Your task to perform on an android device: Check the latest 3D printers on Target. Image 0: 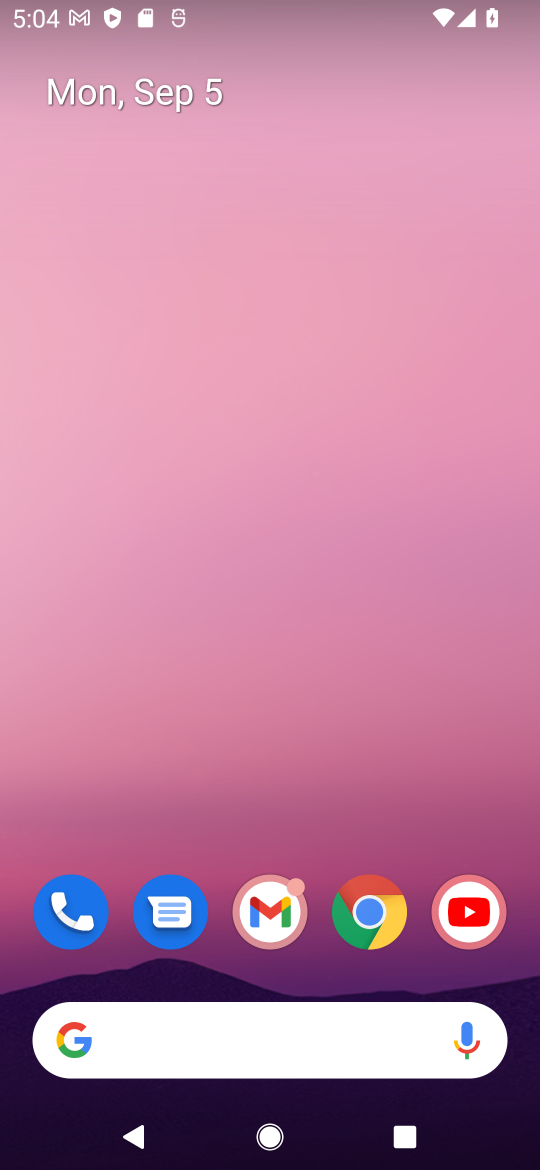
Step 0: click (367, 934)
Your task to perform on an android device: Check the latest 3D printers on Target. Image 1: 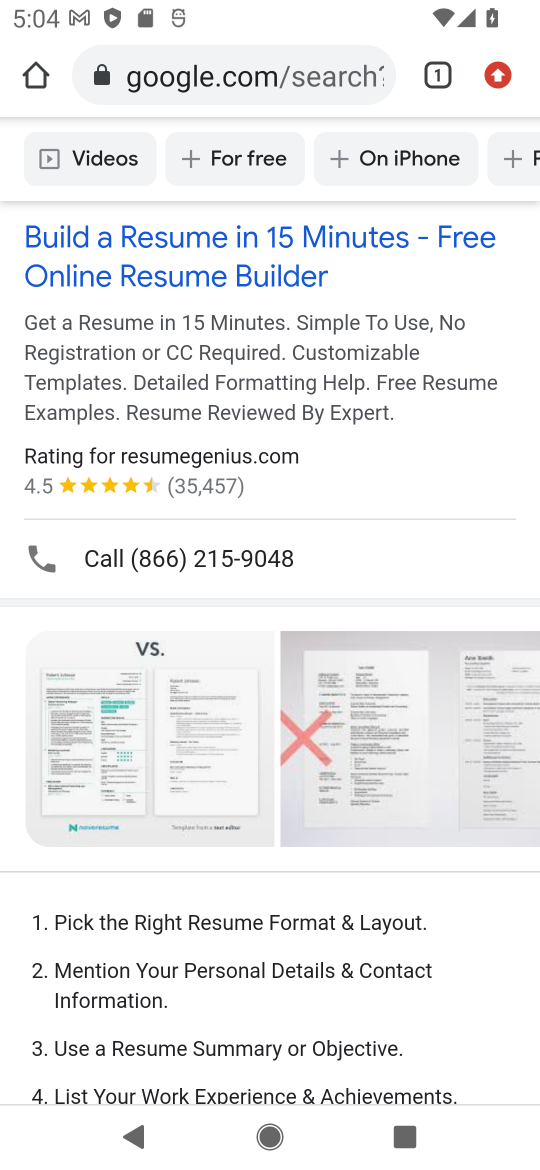
Step 1: click (222, 84)
Your task to perform on an android device: Check the latest 3D printers on Target. Image 2: 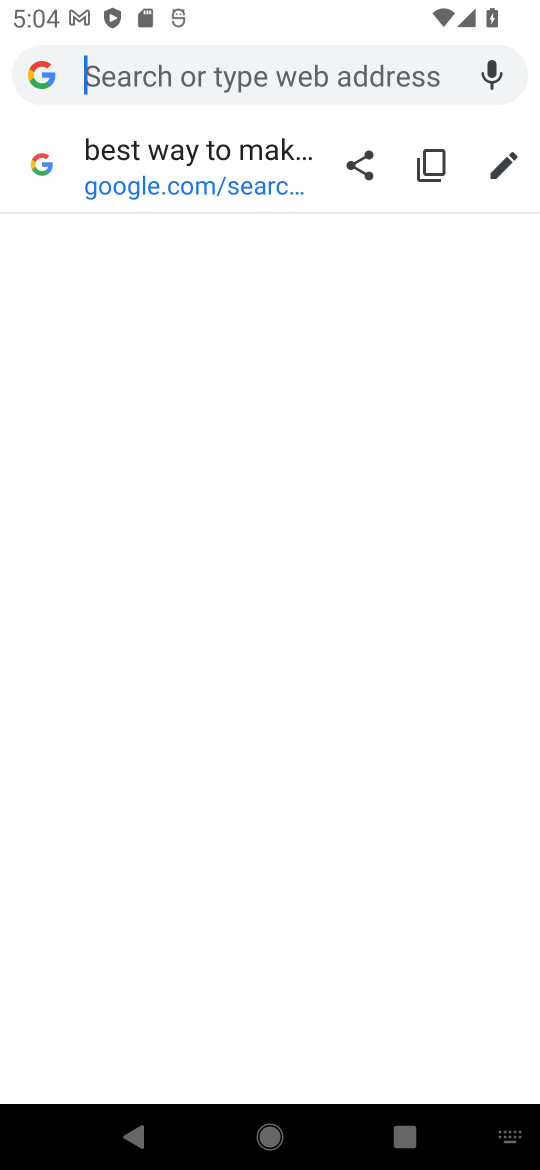
Step 2: type "target"
Your task to perform on an android device: Check the latest 3D printers on Target. Image 3: 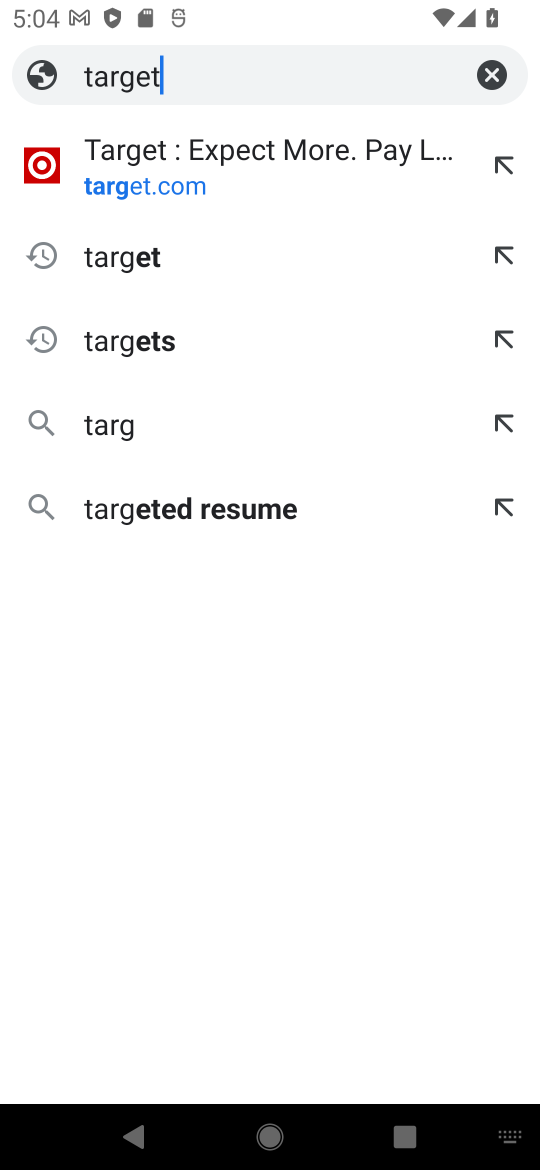
Step 3: type ""
Your task to perform on an android device: Check the latest 3D printers on Target. Image 4: 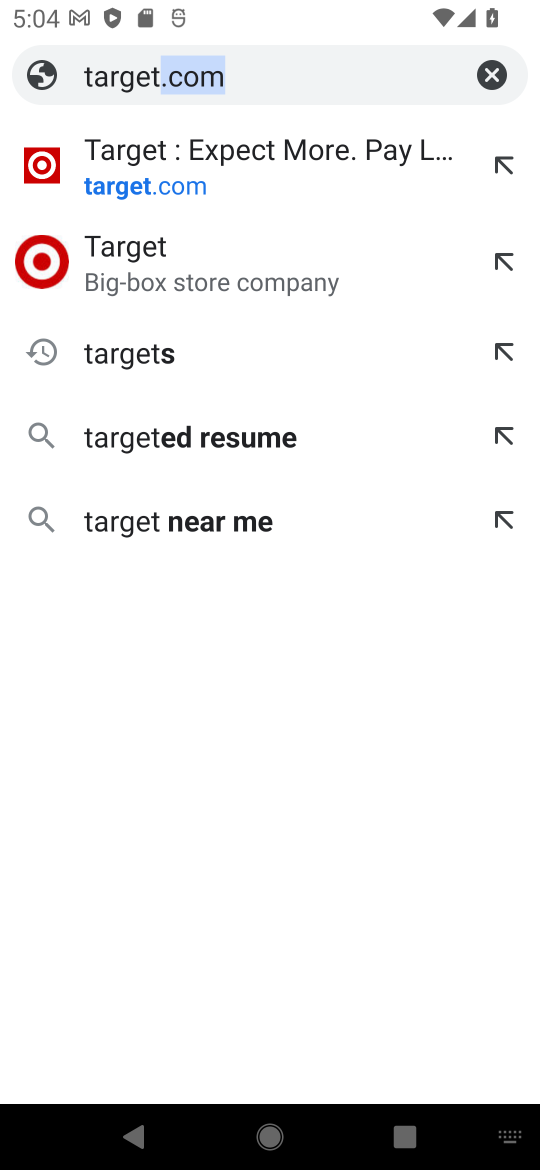
Step 4: press enter
Your task to perform on an android device: Check the latest 3D printers on Target. Image 5: 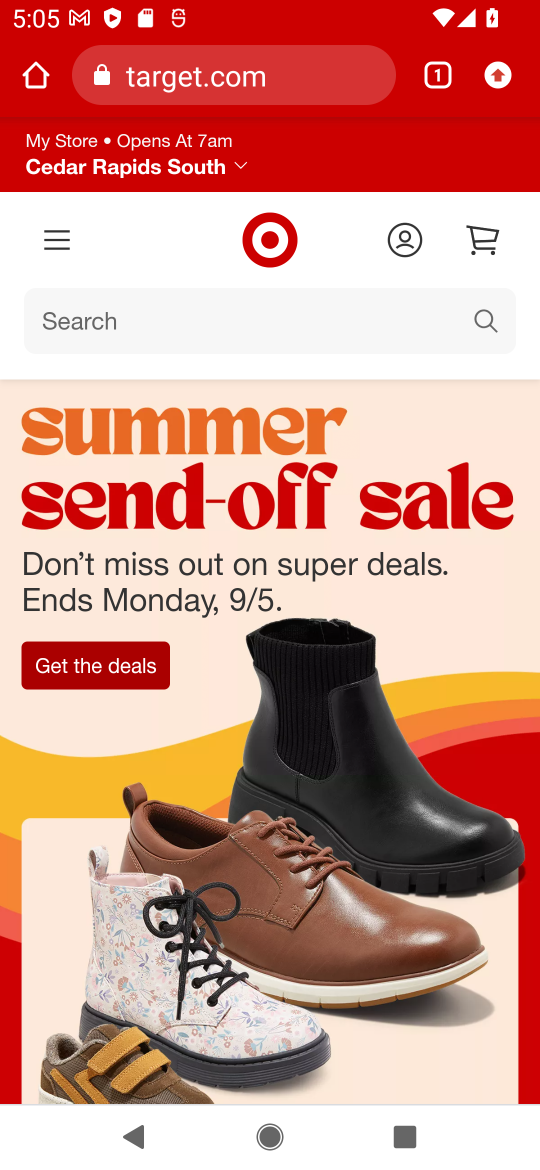
Step 5: click (315, 326)
Your task to perform on an android device: Check the latest 3D printers on Target. Image 6: 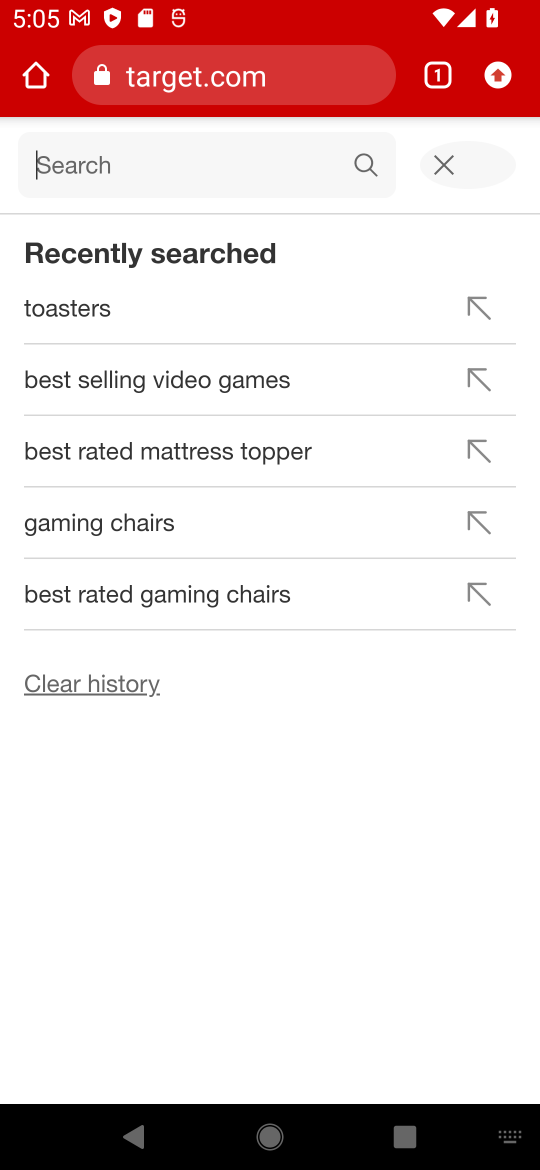
Step 6: type "3d printers"
Your task to perform on an android device: Check the latest 3D printers on Target. Image 7: 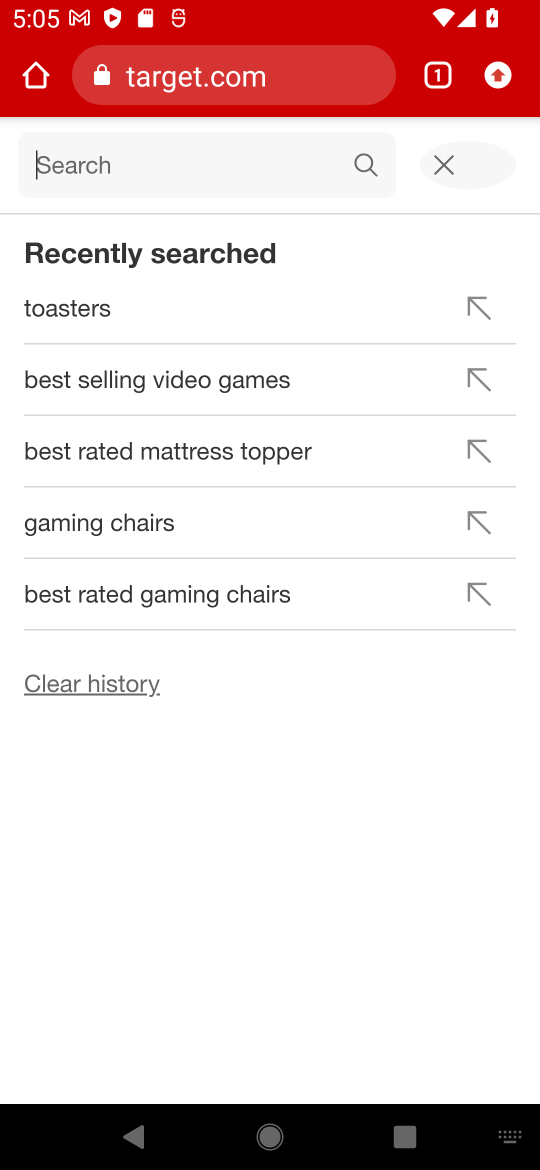
Step 7: type ""
Your task to perform on an android device: Check the latest 3D printers on Target. Image 8: 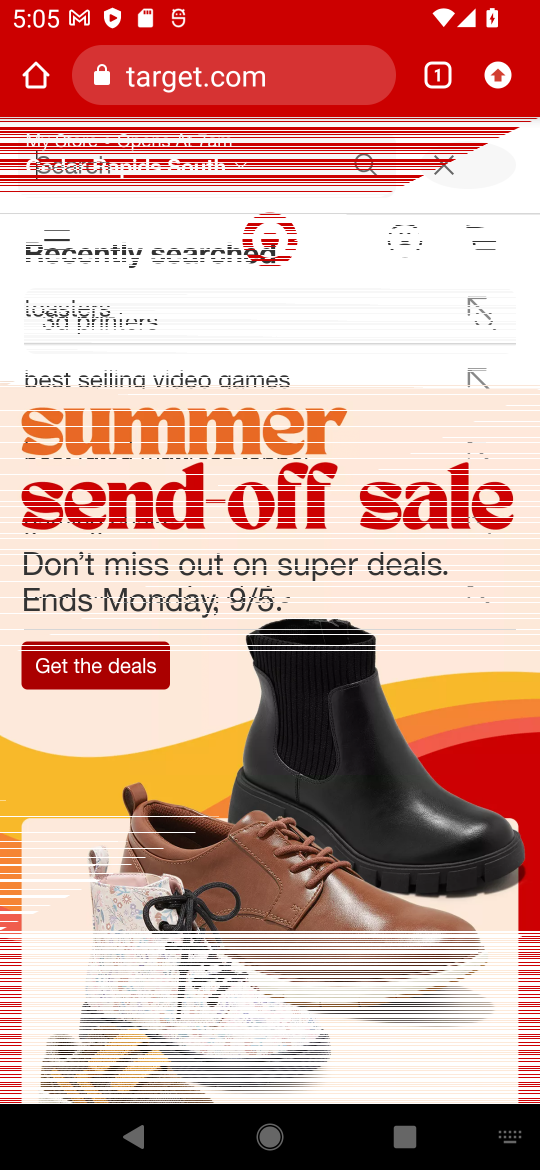
Step 8: press enter
Your task to perform on an android device: Check the latest 3D printers on Target. Image 9: 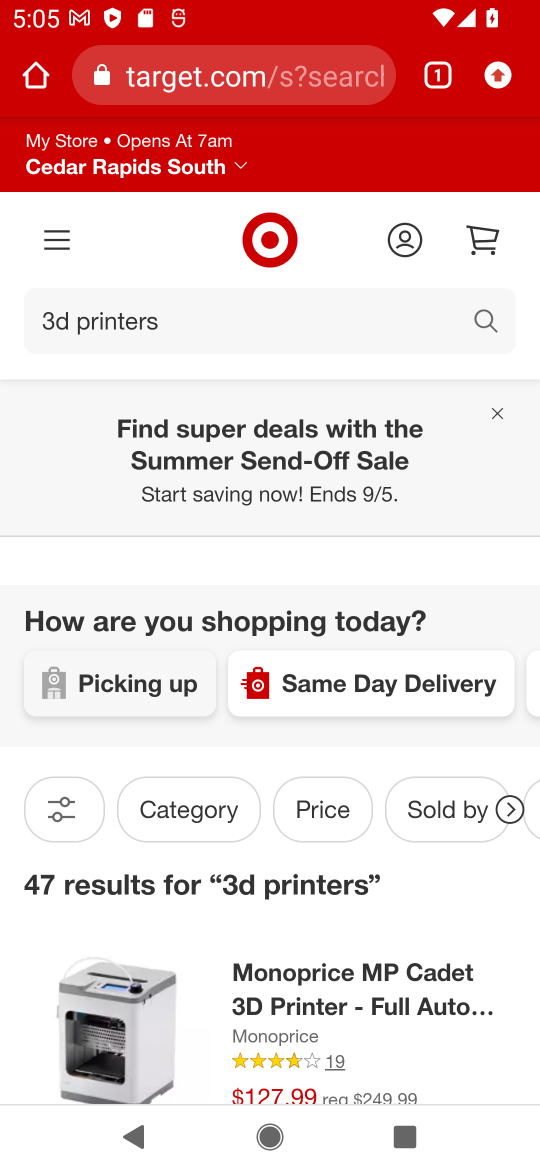
Step 9: click (42, 814)
Your task to perform on an android device: Check the latest 3D printers on Target. Image 10: 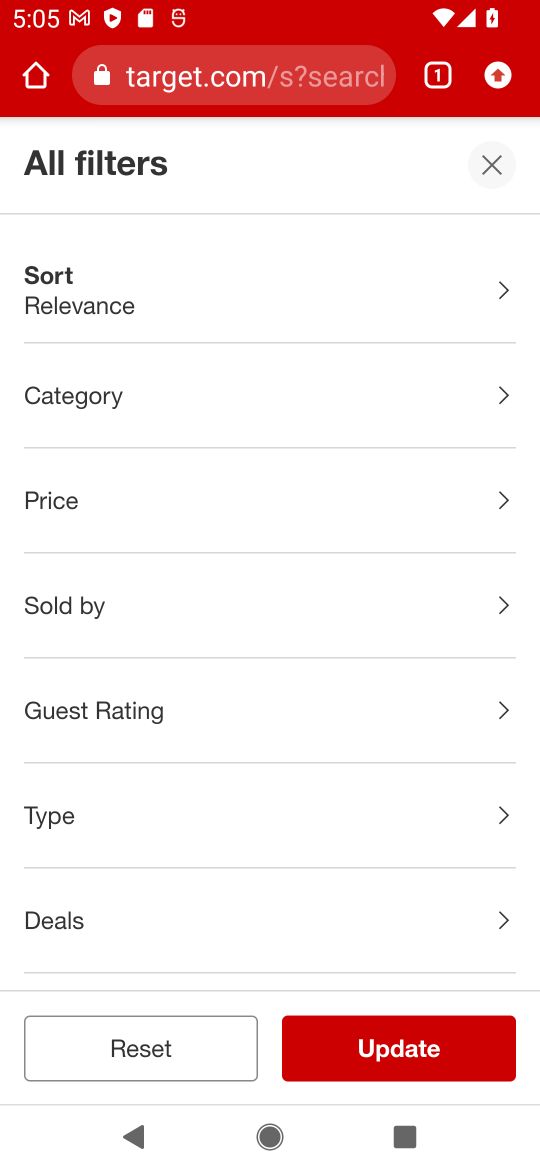
Step 10: click (173, 318)
Your task to perform on an android device: Check the latest 3D printers on Target. Image 11: 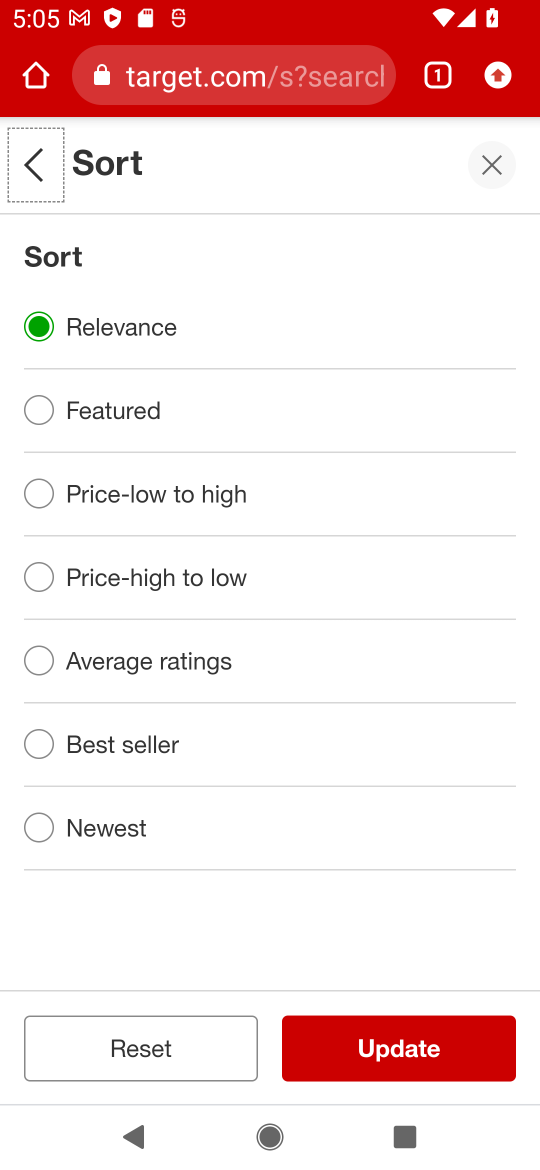
Step 11: click (161, 827)
Your task to perform on an android device: Check the latest 3D printers on Target. Image 12: 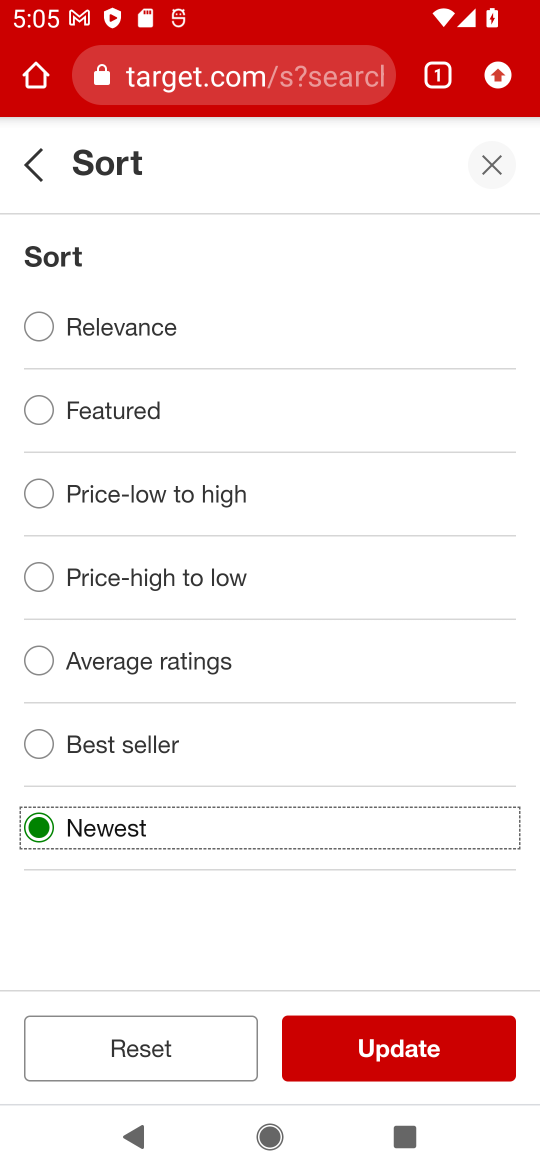
Step 12: click (405, 1058)
Your task to perform on an android device: Check the latest 3D printers on Target. Image 13: 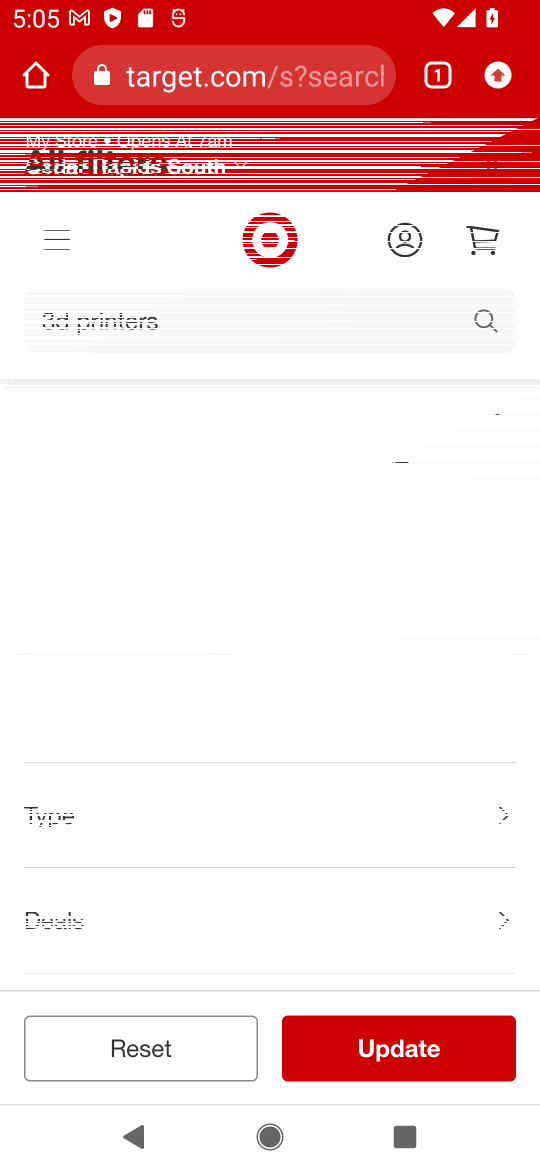
Step 13: click (396, 1036)
Your task to perform on an android device: Check the latest 3D printers on Target. Image 14: 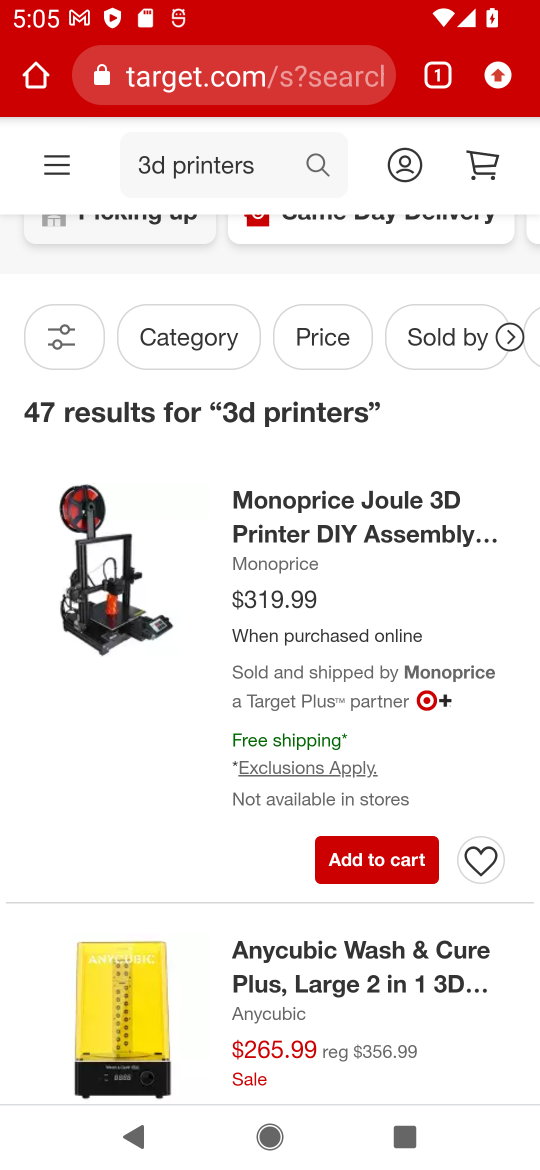
Step 14: task complete